Your task to perform on an android device: Open Google Chrome and open the bookmarks view Image 0: 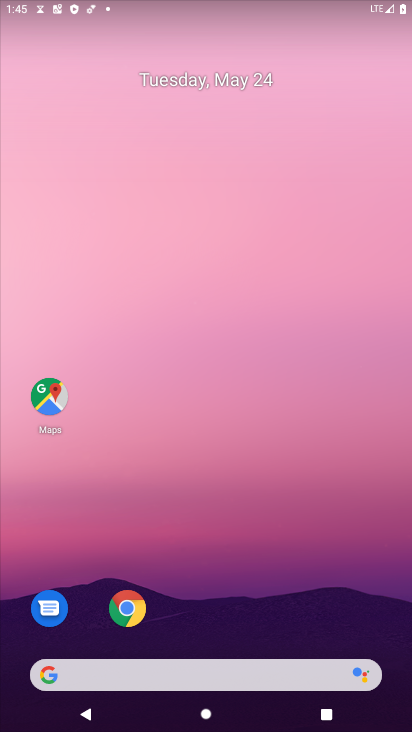
Step 0: click (134, 617)
Your task to perform on an android device: Open Google Chrome and open the bookmarks view Image 1: 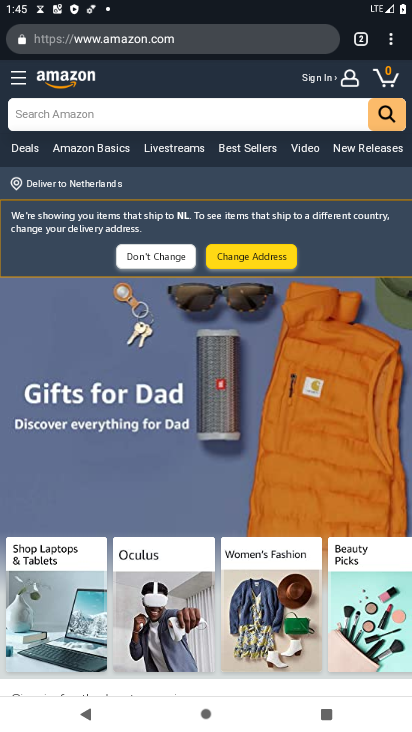
Step 1: click (392, 51)
Your task to perform on an android device: Open Google Chrome and open the bookmarks view Image 2: 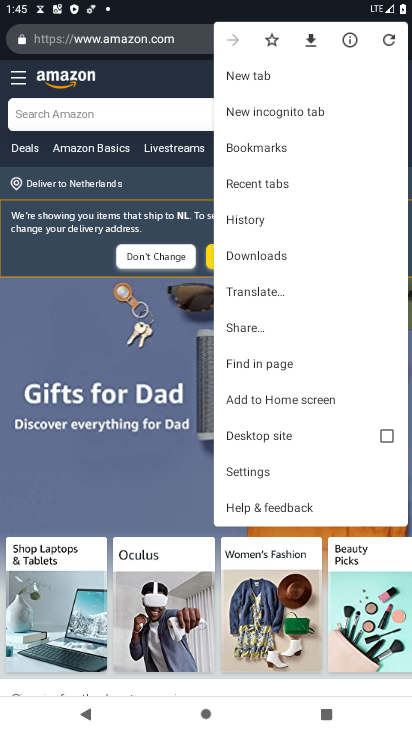
Step 2: click (305, 149)
Your task to perform on an android device: Open Google Chrome and open the bookmarks view Image 3: 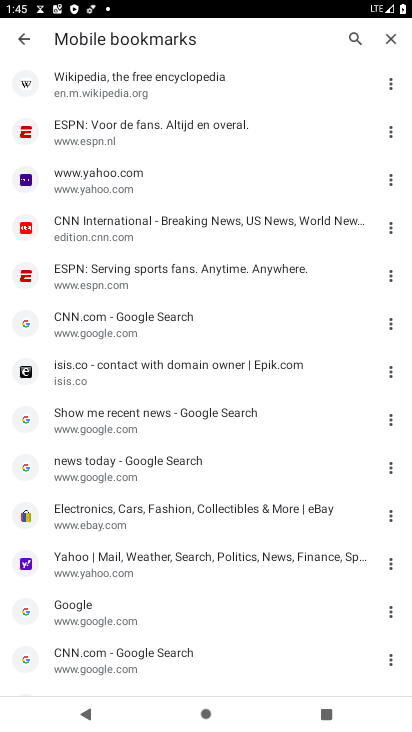
Step 3: task complete